Your task to perform on an android device: move a message to another label in the gmail app Image 0: 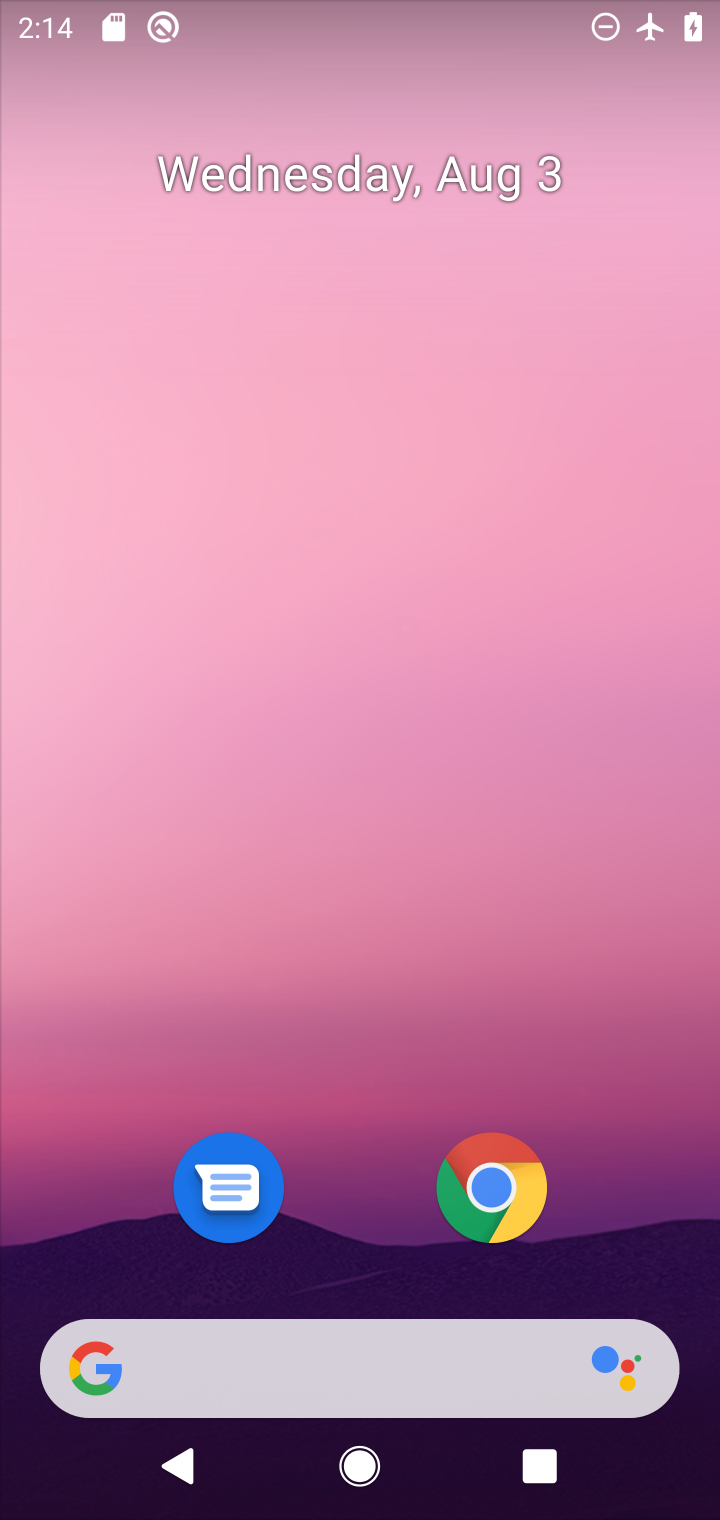
Step 0: press home button
Your task to perform on an android device: move a message to another label in the gmail app Image 1: 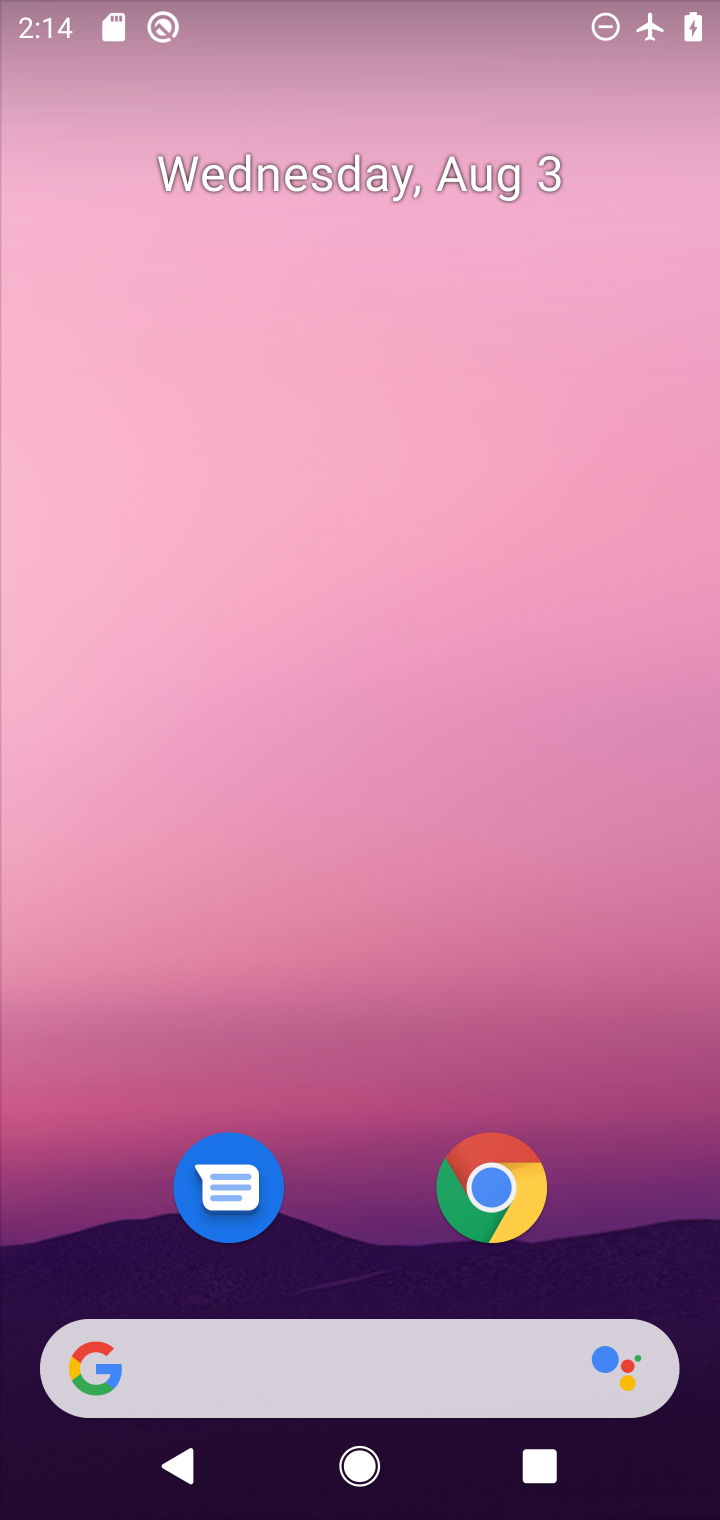
Step 1: drag from (402, 1085) to (438, 25)
Your task to perform on an android device: move a message to another label in the gmail app Image 2: 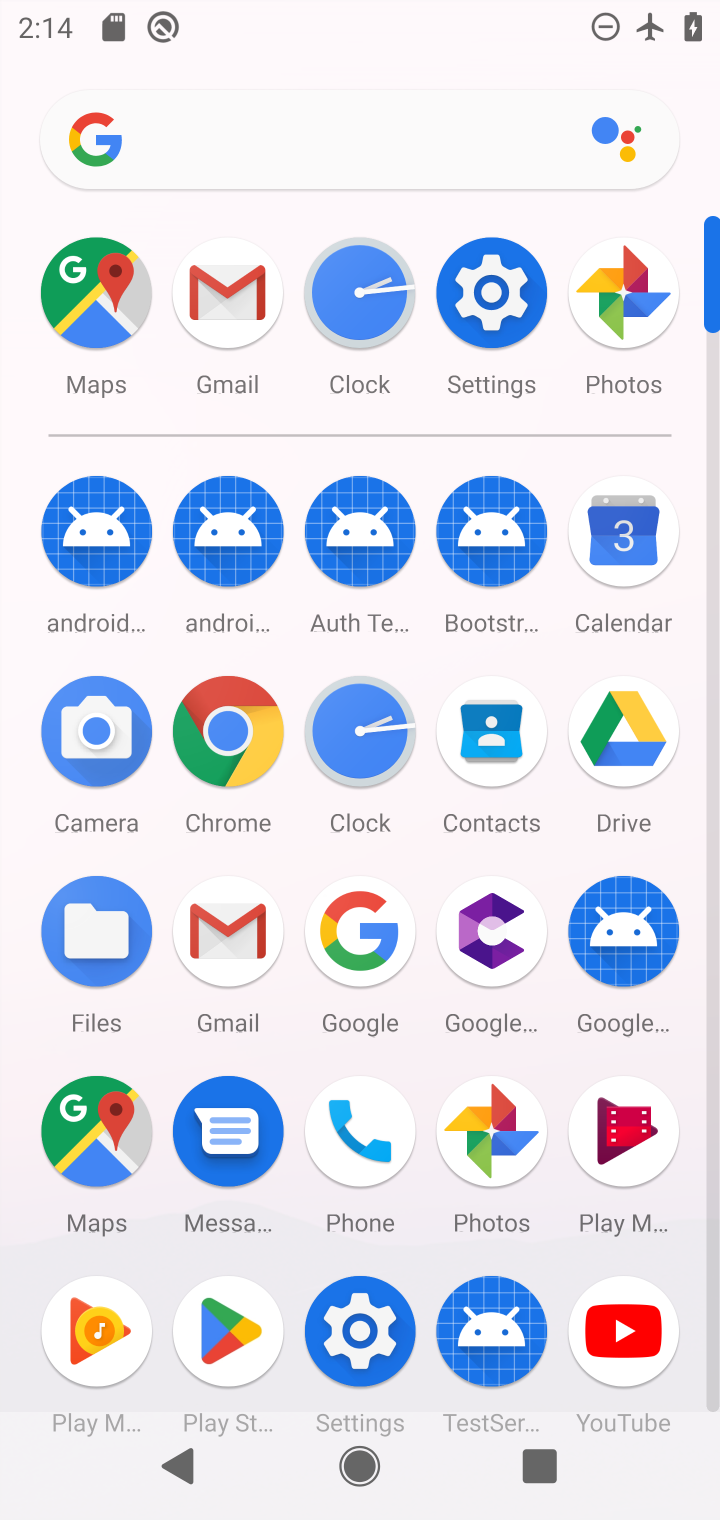
Step 2: click (255, 287)
Your task to perform on an android device: move a message to another label in the gmail app Image 3: 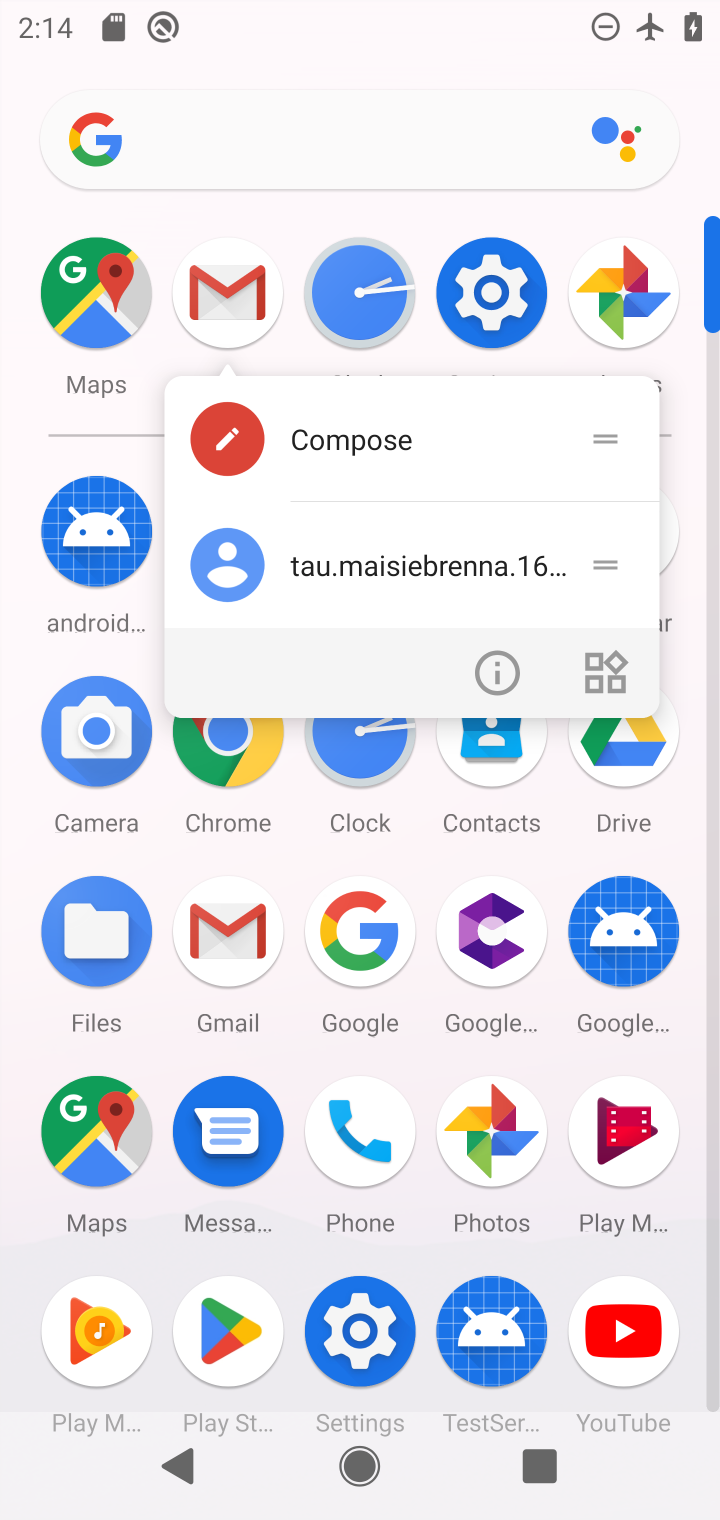
Step 3: click (255, 294)
Your task to perform on an android device: move a message to another label in the gmail app Image 4: 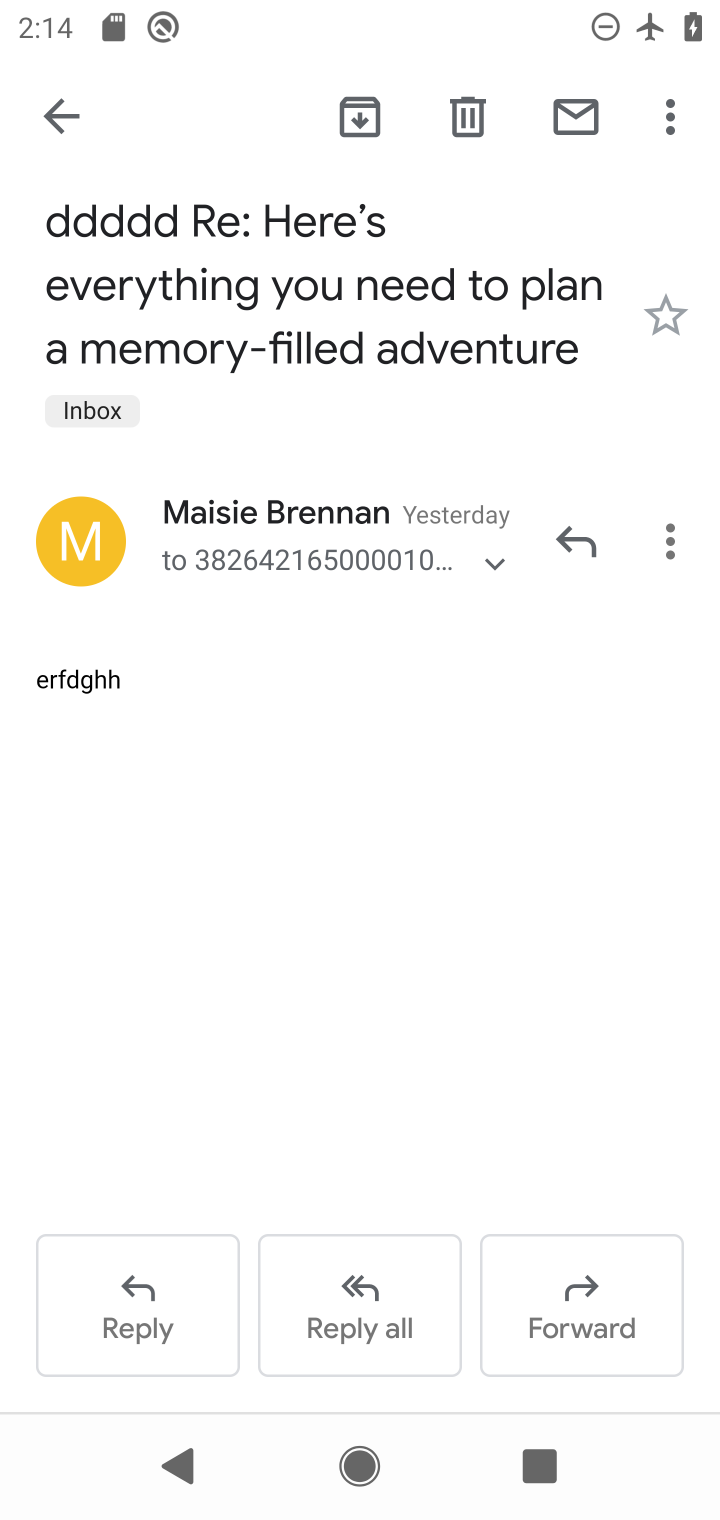
Step 4: click (669, 112)
Your task to perform on an android device: move a message to another label in the gmail app Image 5: 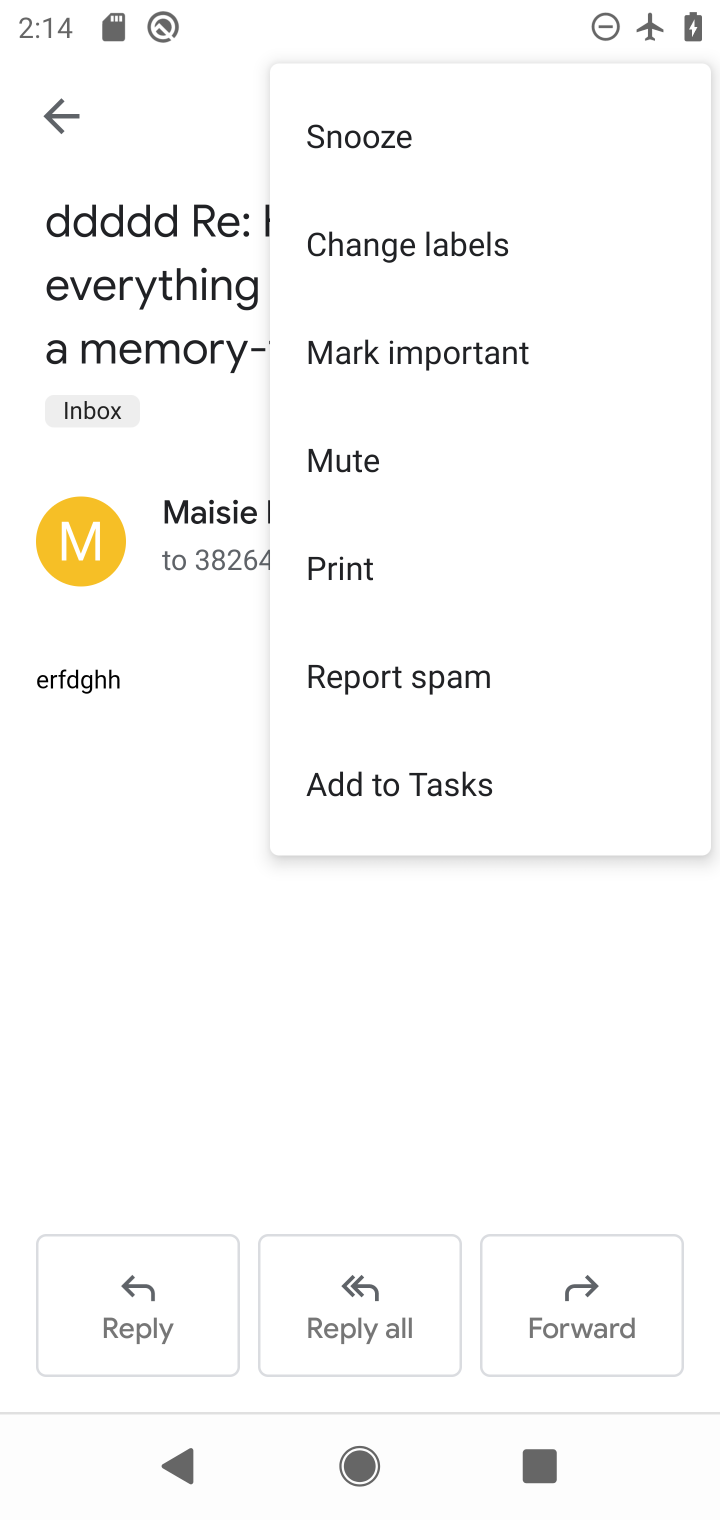
Step 5: click (494, 233)
Your task to perform on an android device: move a message to another label in the gmail app Image 6: 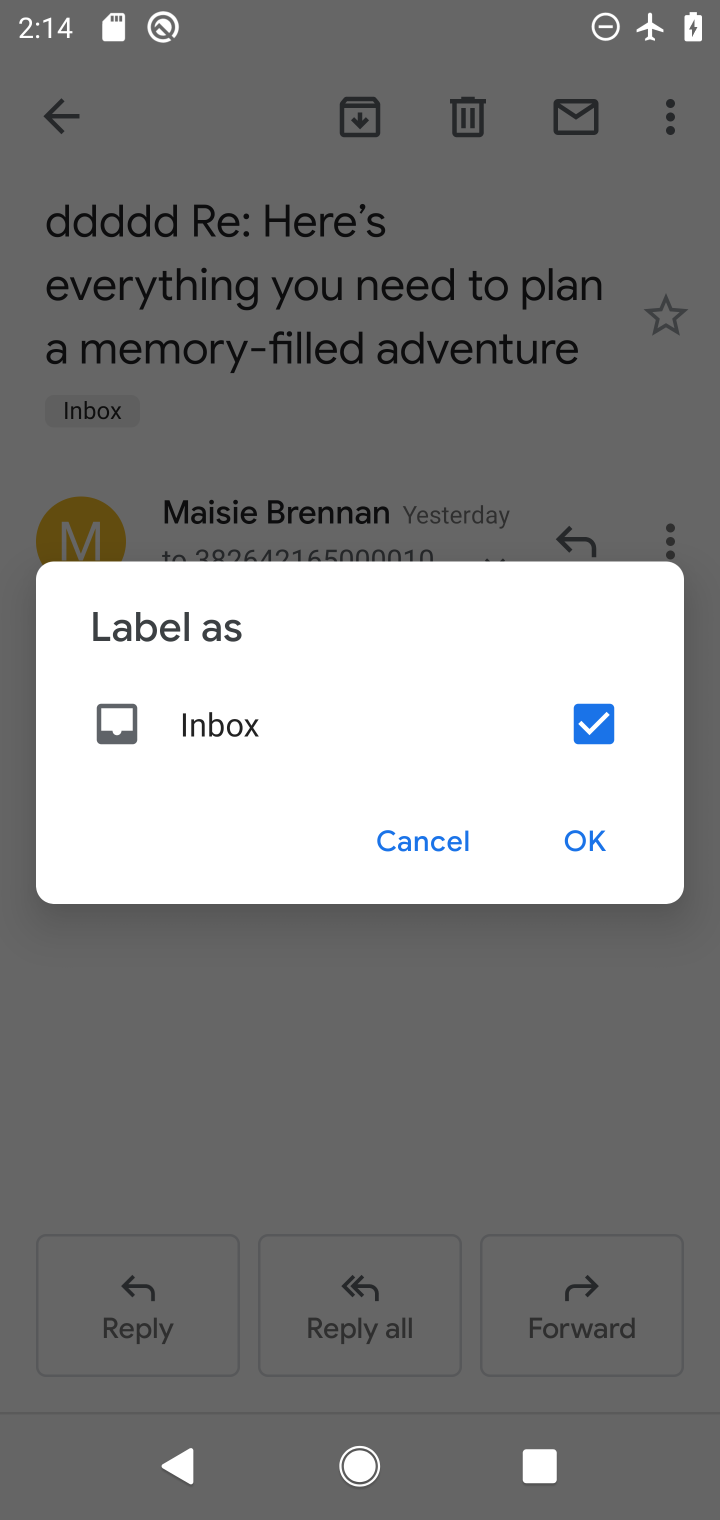
Step 6: click (599, 711)
Your task to perform on an android device: move a message to another label in the gmail app Image 7: 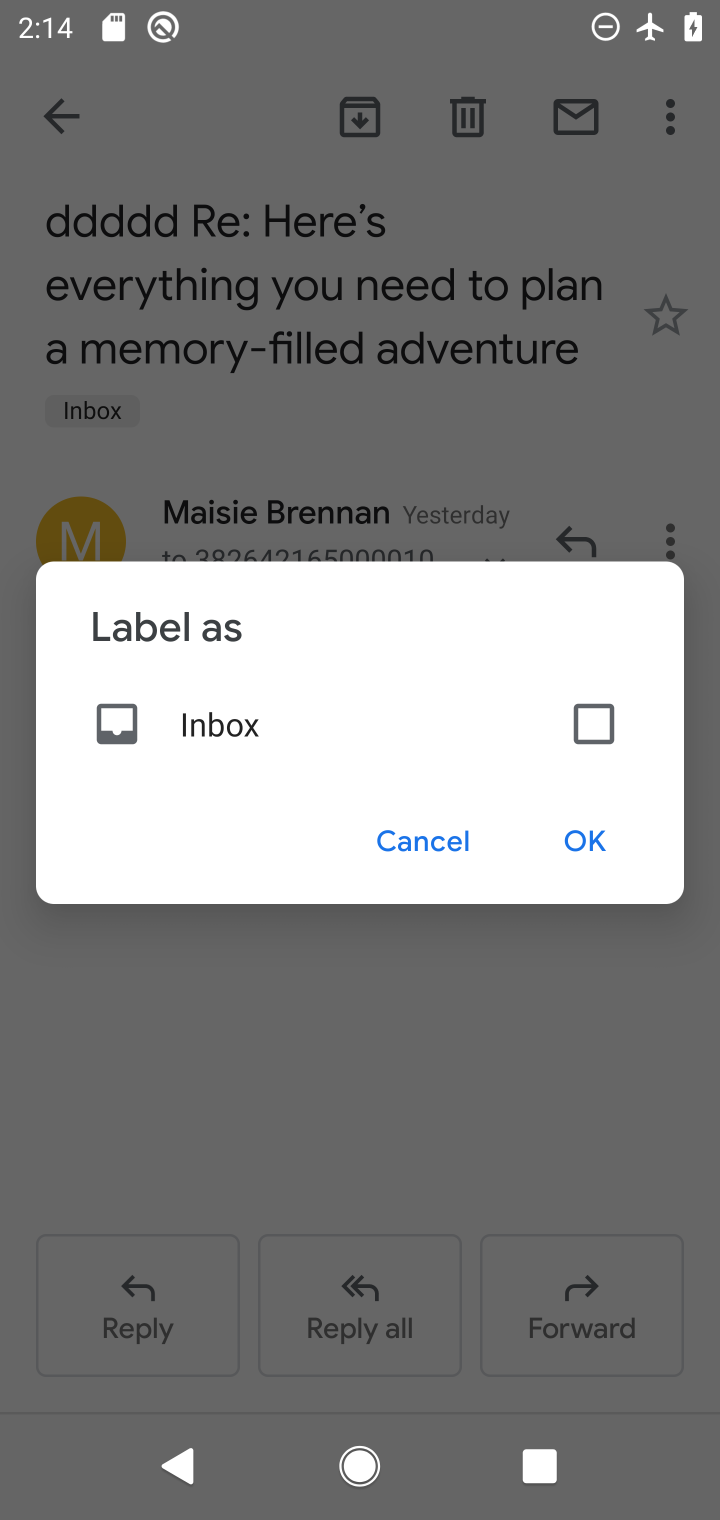
Step 7: click (586, 843)
Your task to perform on an android device: move a message to another label in the gmail app Image 8: 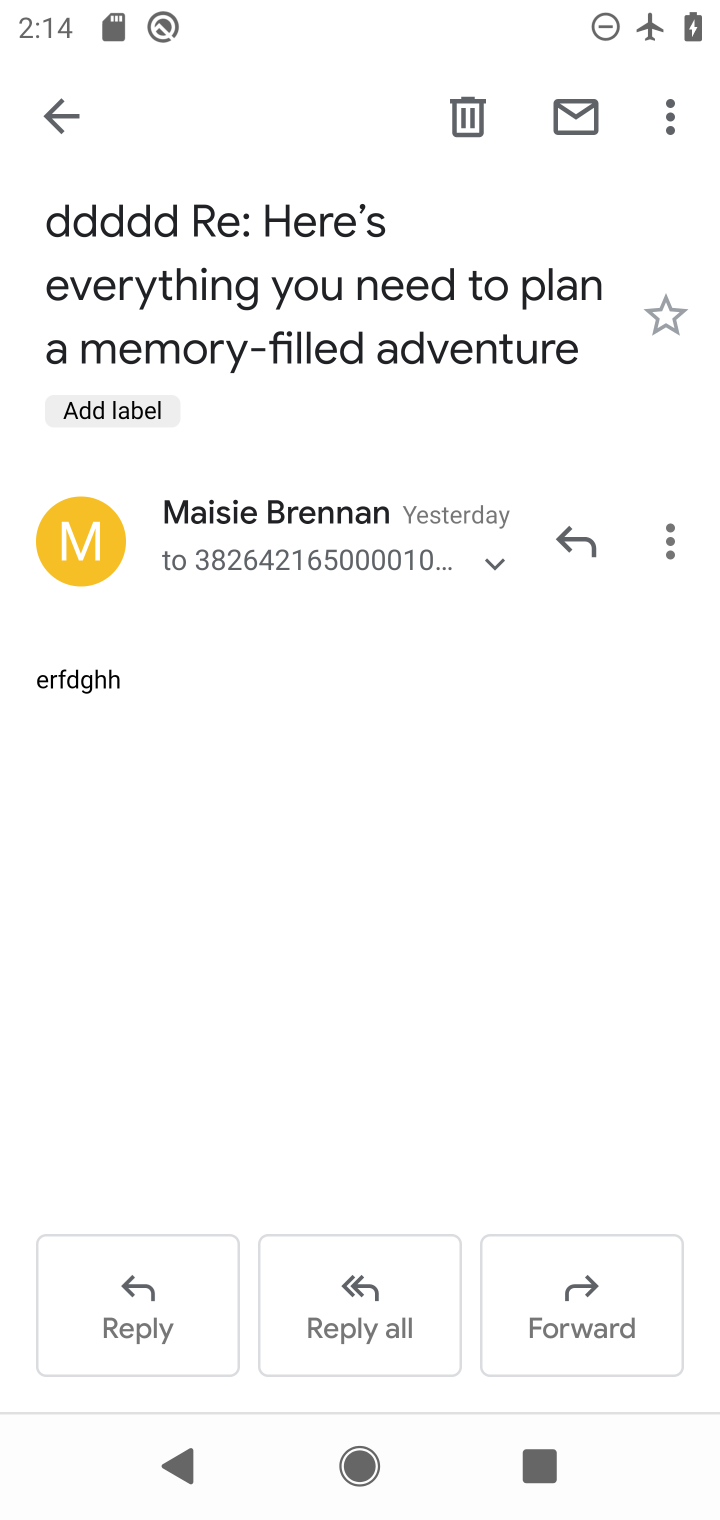
Step 8: task complete